Your task to perform on an android device: Search for Italian restaurants on Maps Image 0: 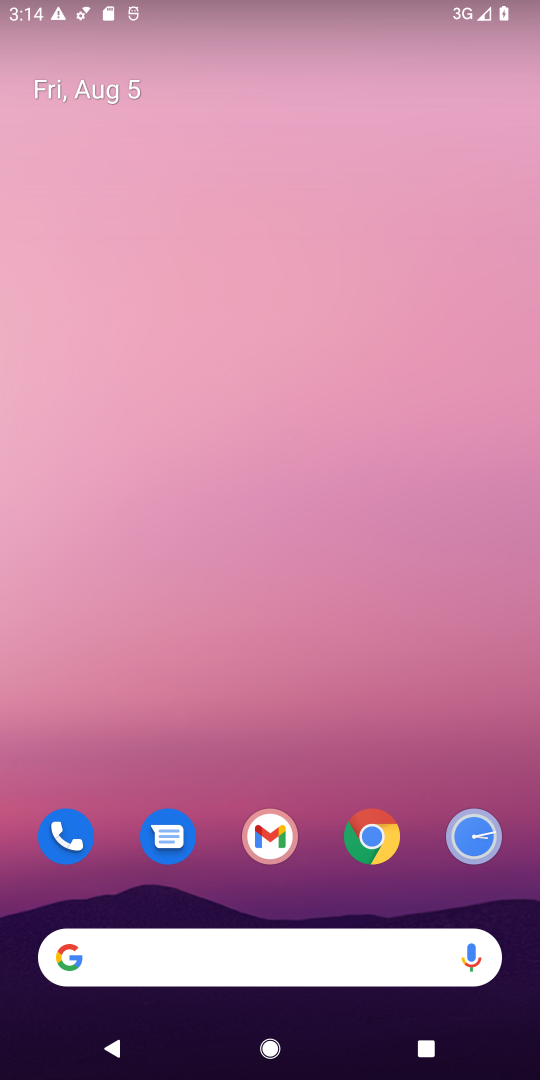
Step 0: drag from (160, 593) to (157, 37)
Your task to perform on an android device: Search for Italian restaurants on Maps Image 1: 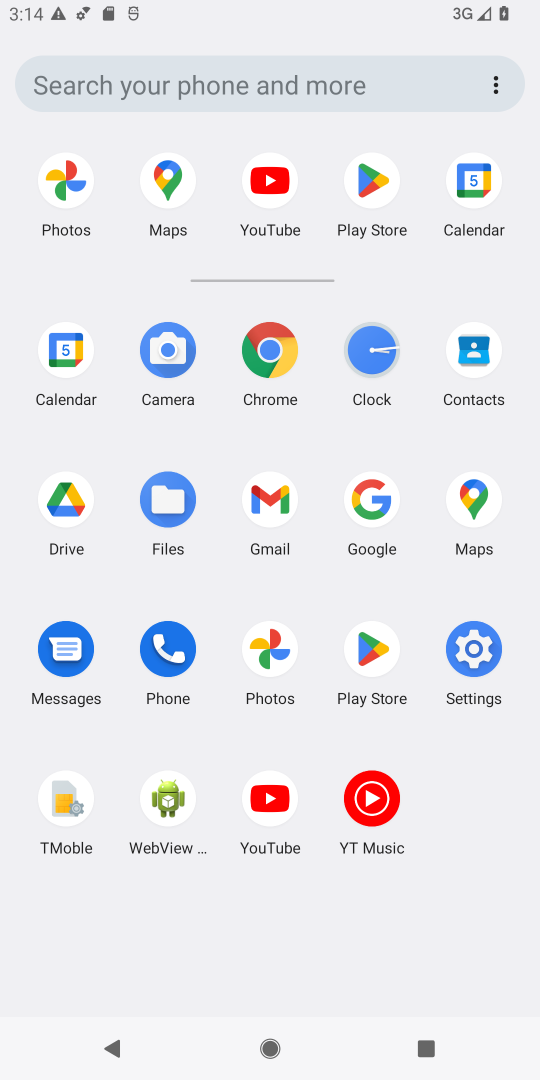
Step 1: click (459, 518)
Your task to perform on an android device: Search for Italian restaurants on Maps Image 2: 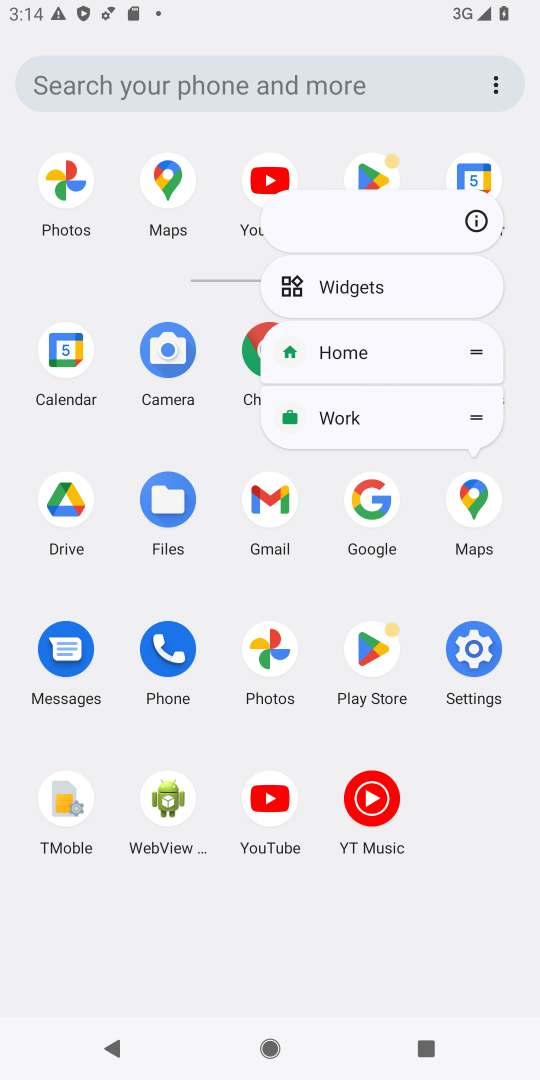
Step 2: click (485, 527)
Your task to perform on an android device: Search for Italian restaurants on Maps Image 3: 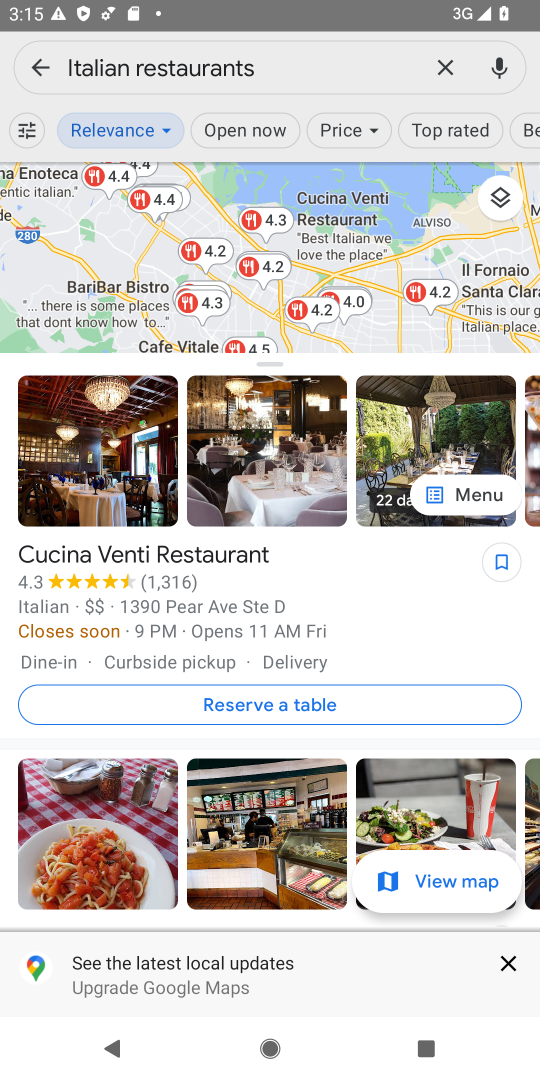
Step 3: task complete